Your task to perform on an android device: Open Reddit.com Image 0: 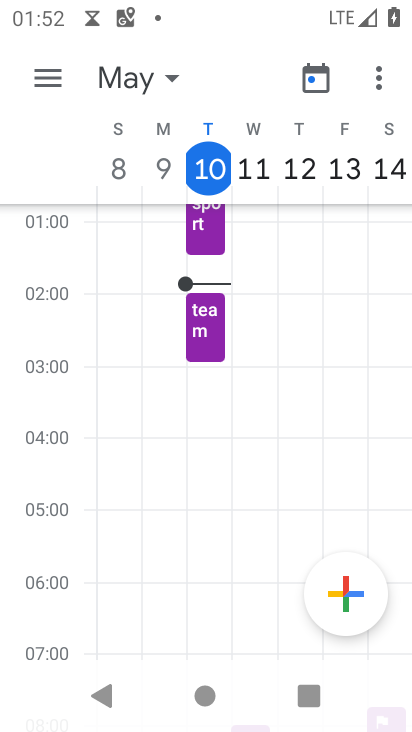
Step 0: press home button
Your task to perform on an android device: Open Reddit.com Image 1: 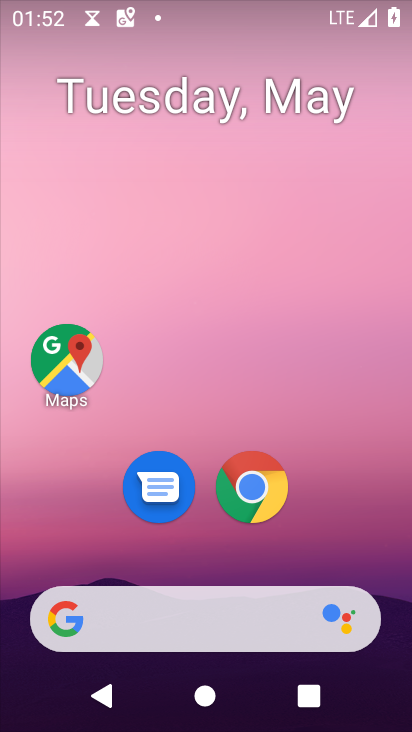
Step 1: click (252, 518)
Your task to perform on an android device: Open Reddit.com Image 2: 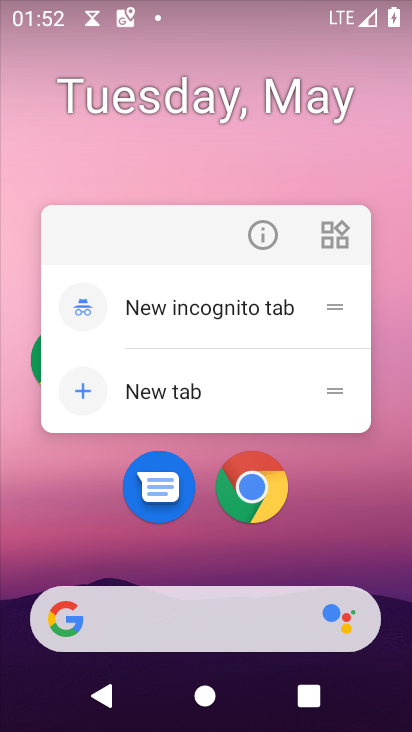
Step 2: click (252, 518)
Your task to perform on an android device: Open Reddit.com Image 3: 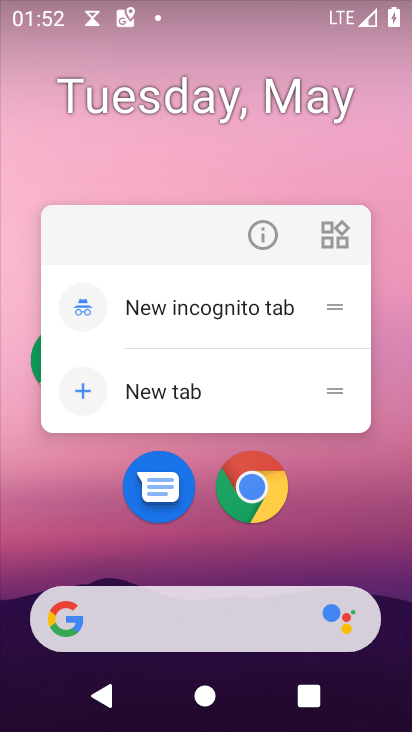
Step 3: click (252, 478)
Your task to perform on an android device: Open Reddit.com Image 4: 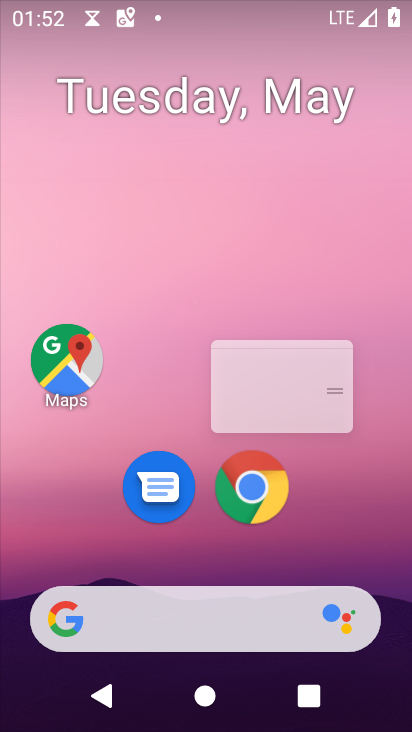
Step 4: click (252, 478)
Your task to perform on an android device: Open Reddit.com Image 5: 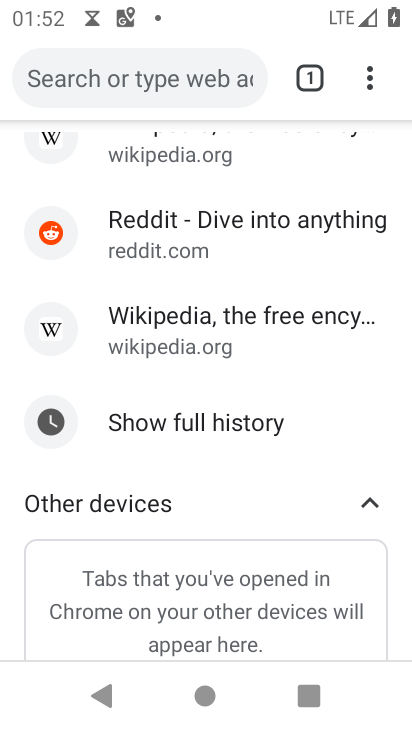
Step 5: click (175, 217)
Your task to perform on an android device: Open Reddit.com Image 6: 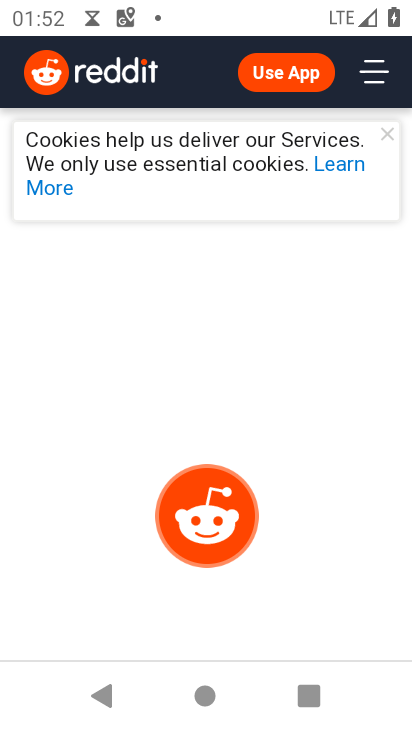
Step 6: task complete